Your task to perform on an android device: check google app version Image 0: 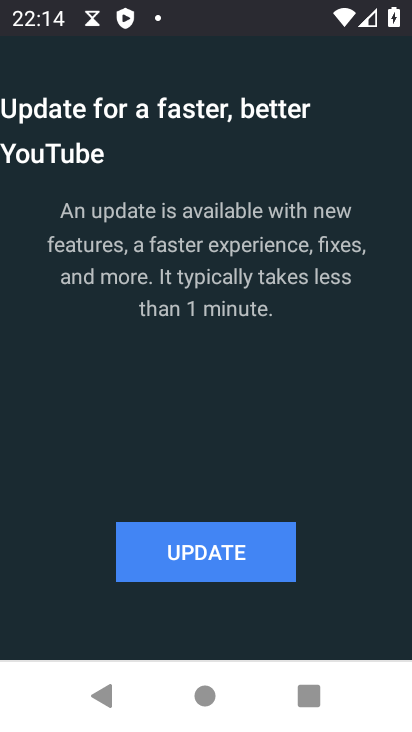
Step 0: press home button
Your task to perform on an android device: check google app version Image 1: 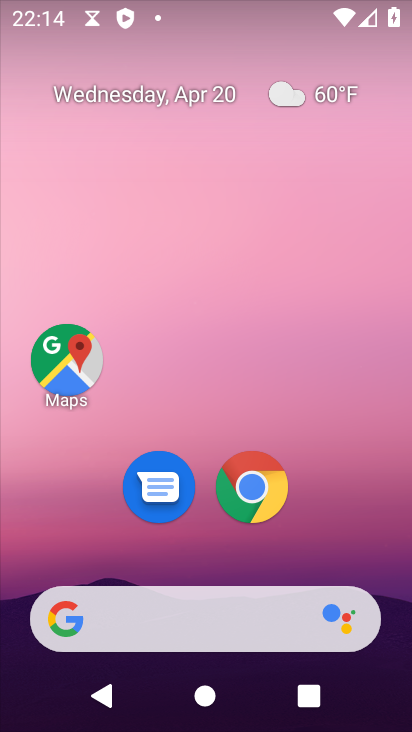
Step 1: drag from (15, 686) to (296, 236)
Your task to perform on an android device: check google app version Image 2: 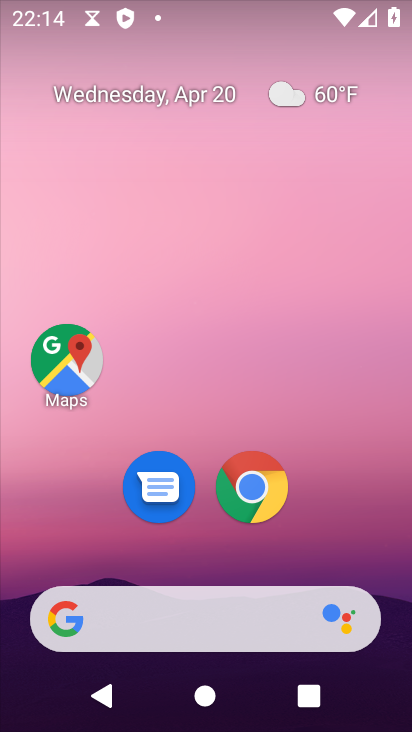
Step 2: drag from (10, 731) to (271, 329)
Your task to perform on an android device: check google app version Image 3: 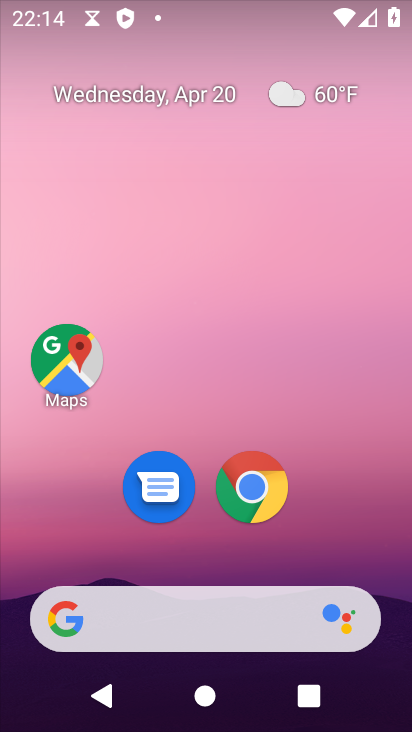
Step 3: drag from (115, 500) to (262, 272)
Your task to perform on an android device: check google app version Image 4: 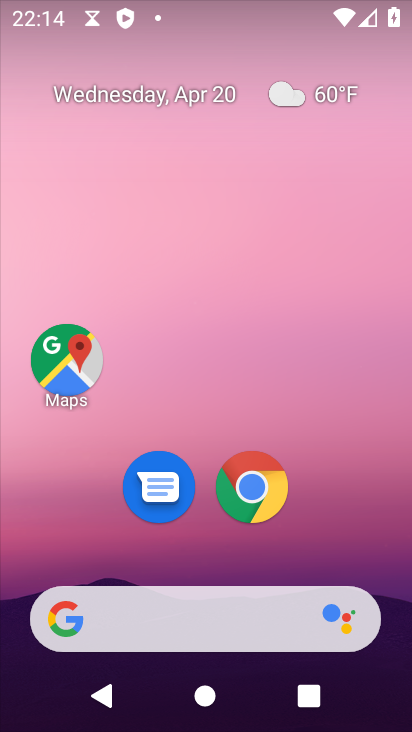
Step 4: drag from (29, 628) to (269, 227)
Your task to perform on an android device: check google app version Image 5: 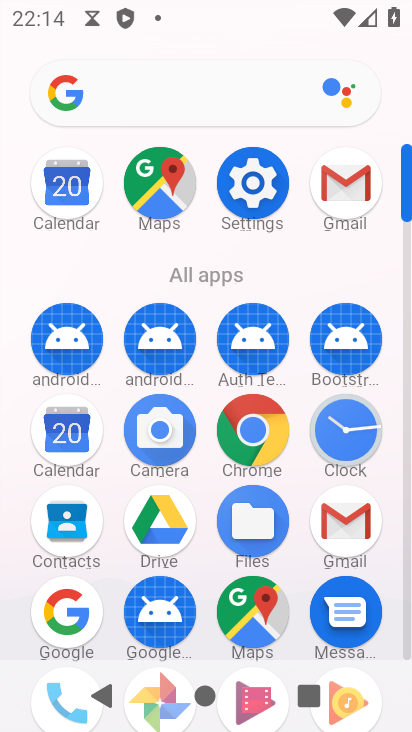
Step 5: click (159, 609)
Your task to perform on an android device: check google app version Image 6: 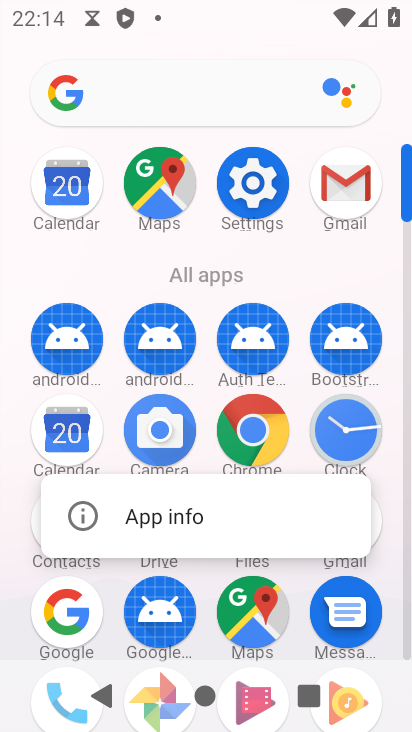
Step 6: click (163, 522)
Your task to perform on an android device: check google app version Image 7: 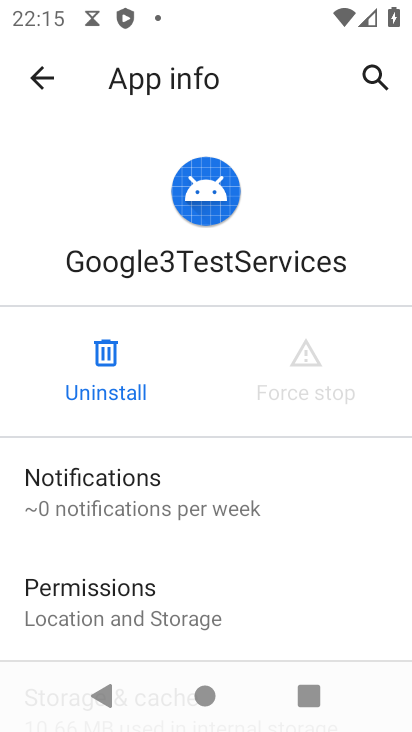
Step 7: drag from (124, 595) to (278, 284)
Your task to perform on an android device: check google app version Image 8: 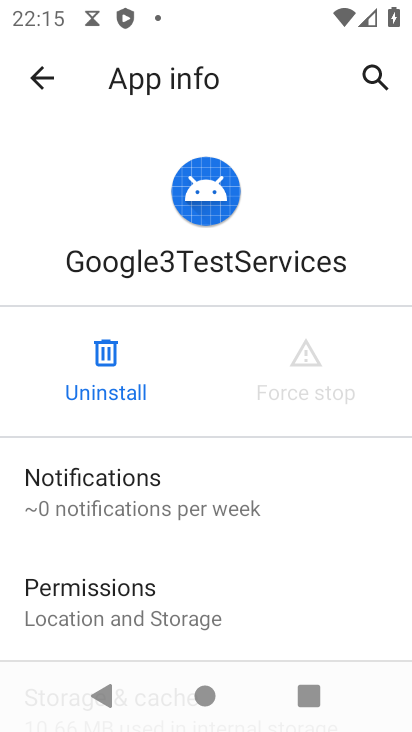
Step 8: drag from (173, 595) to (331, 281)
Your task to perform on an android device: check google app version Image 9: 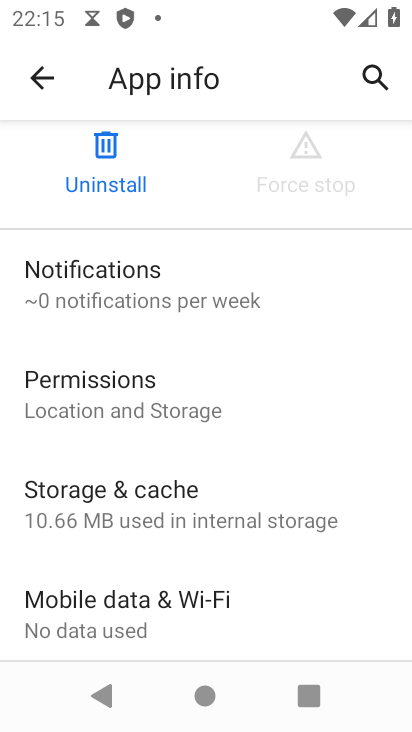
Step 9: drag from (108, 598) to (261, 245)
Your task to perform on an android device: check google app version Image 10: 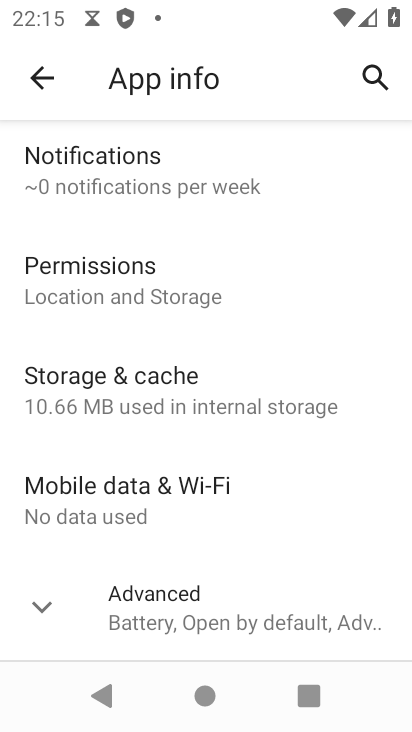
Step 10: click (145, 610)
Your task to perform on an android device: check google app version Image 11: 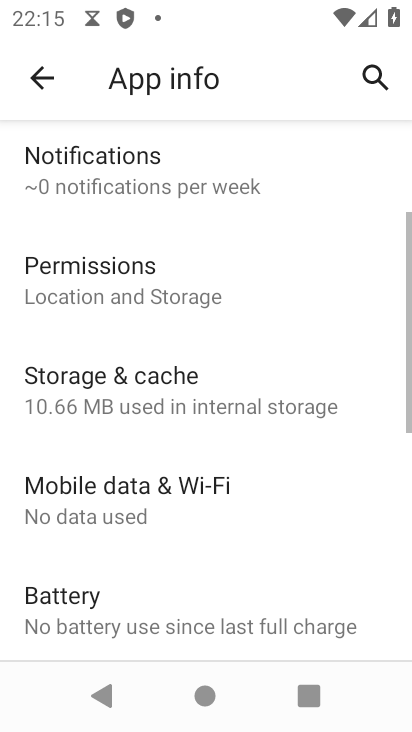
Step 11: drag from (148, 636) to (303, 291)
Your task to perform on an android device: check google app version Image 12: 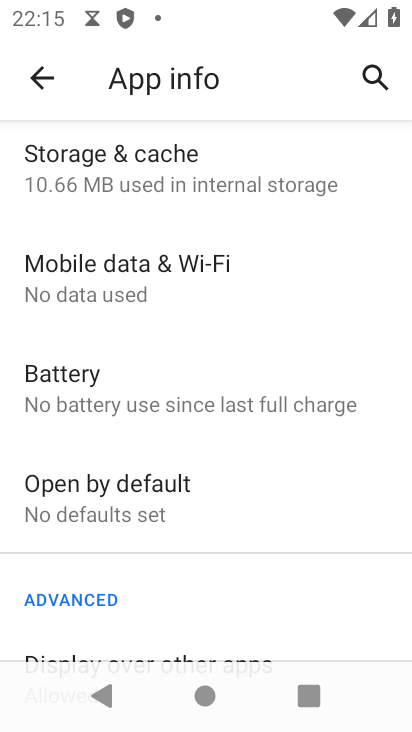
Step 12: drag from (169, 588) to (342, 271)
Your task to perform on an android device: check google app version Image 13: 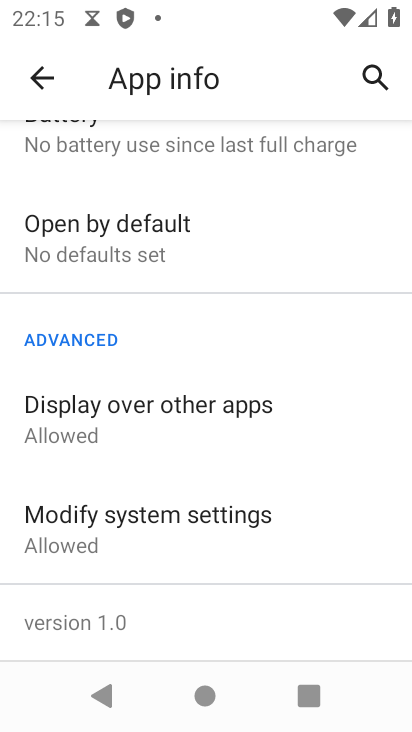
Step 13: drag from (127, 599) to (249, 406)
Your task to perform on an android device: check google app version Image 14: 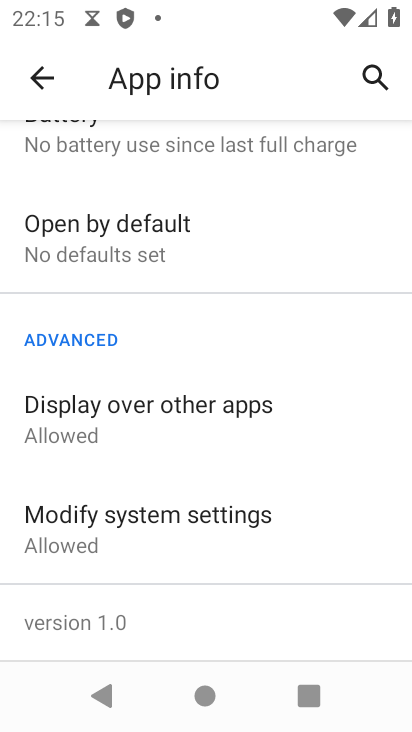
Step 14: click (92, 613)
Your task to perform on an android device: check google app version Image 15: 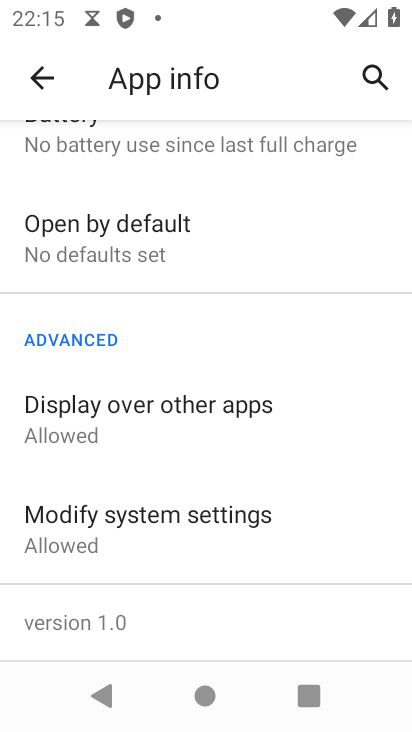
Step 15: task complete